Your task to perform on an android device: Go to ESPN.com Image 0: 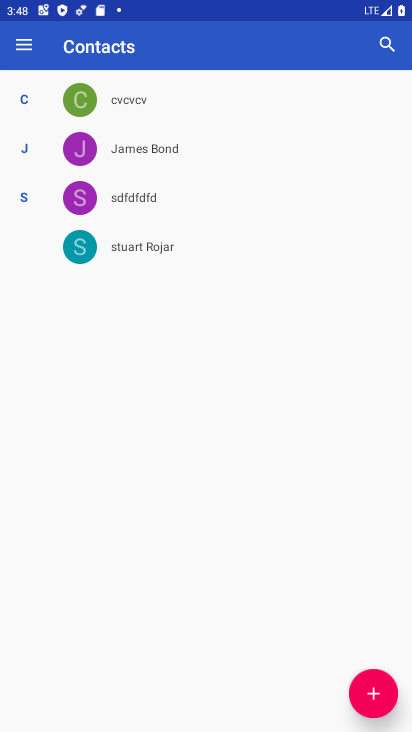
Step 0: press home button
Your task to perform on an android device: Go to ESPN.com Image 1: 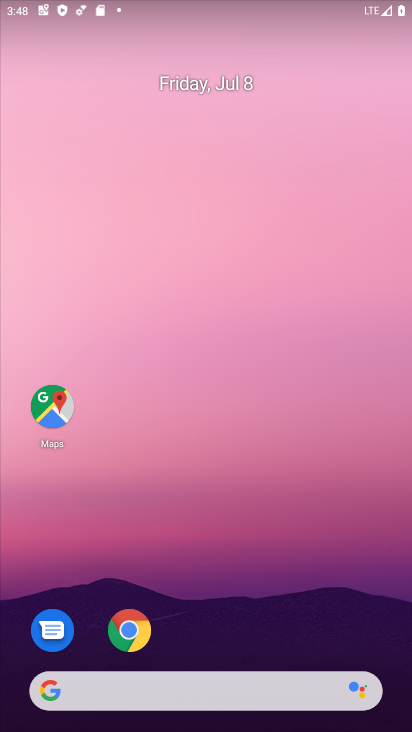
Step 1: click (130, 632)
Your task to perform on an android device: Go to ESPN.com Image 2: 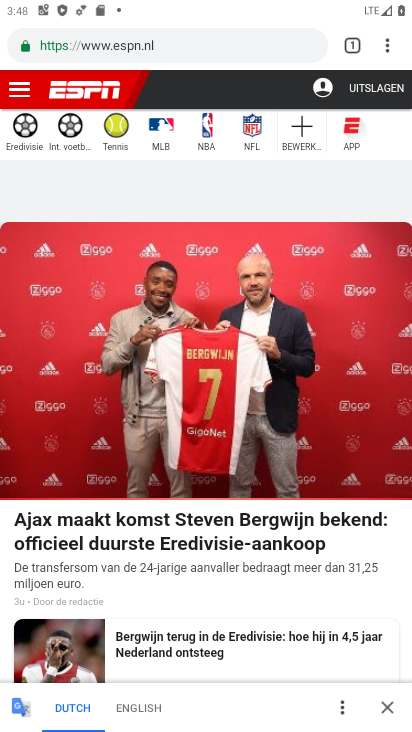
Step 2: task complete